Your task to perform on an android device: Show me productivity apps on the Play Store Image 0: 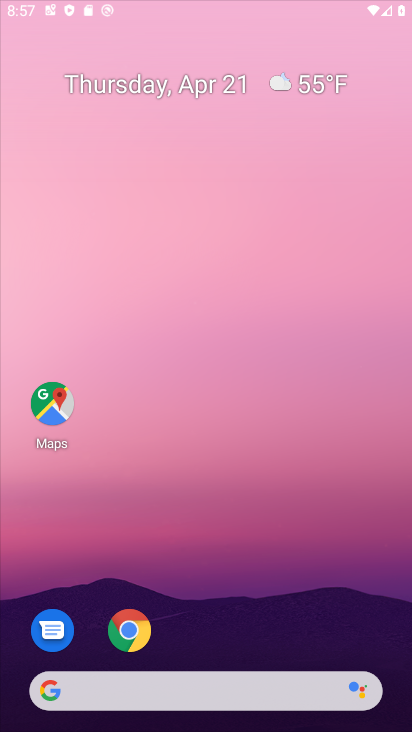
Step 0: click (58, 405)
Your task to perform on an android device: Show me productivity apps on the Play Store Image 1: 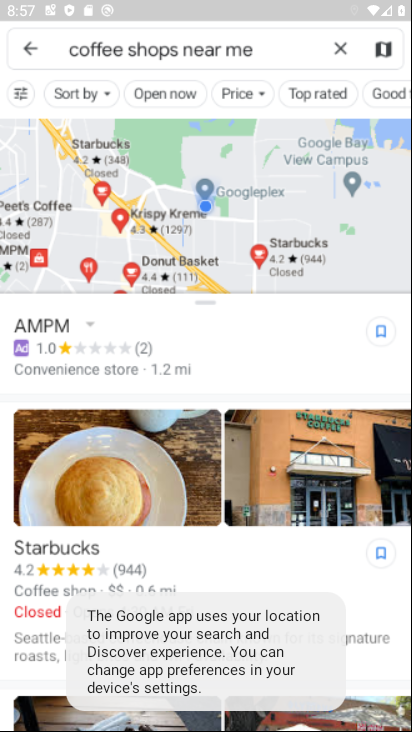
Step 1: click (333, 44)
Your task to perform on an android device: Show me productivity apps on the Play Store Image 2: 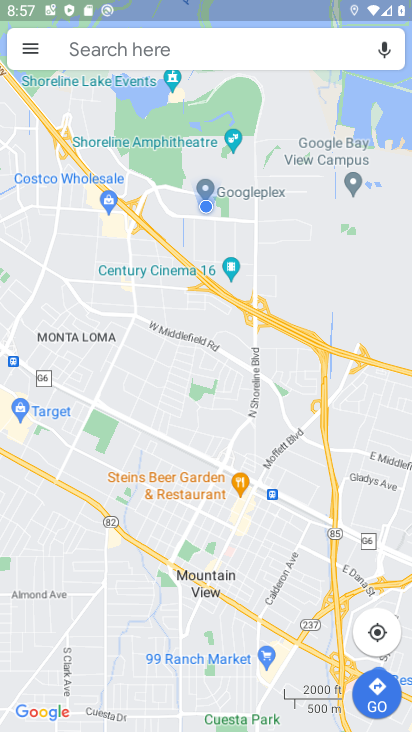
Step 2: click (237, 34)
Your task to perform on an android device: Show me productivity apps on the Play Store Image 3: 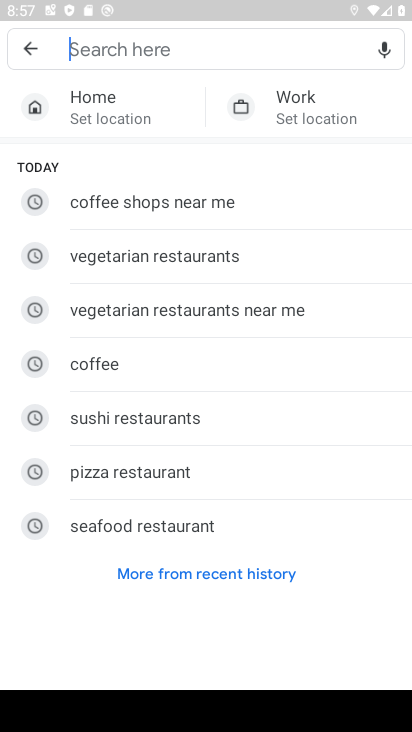
Step 3: press back button
Your task to perform on an android device: Show me productivity apps on the Play Store Image 4: 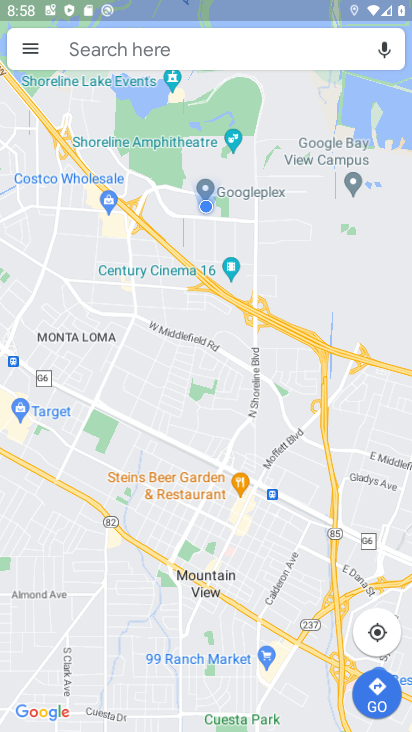
Step 4: press back button
Your task to perform on an android device: Show me productivity apps on the Play Store Image 5: 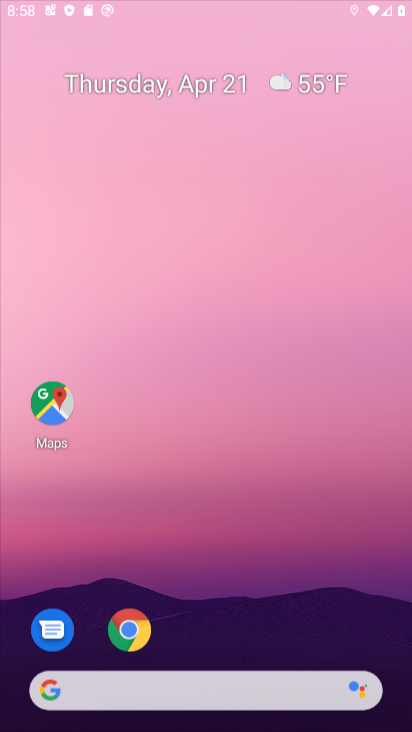
Step 5: press back button
Your task to perform on an android device: Show me productivity apps on the Play Store Image 6: 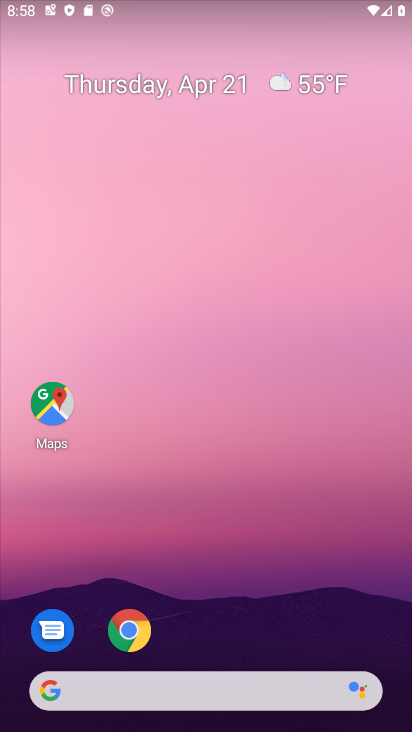
Step 6: drag from (186, 618) to (289, 14)
Your task to perform on an android device: Show me productivity apps on the Play Store Image 7: 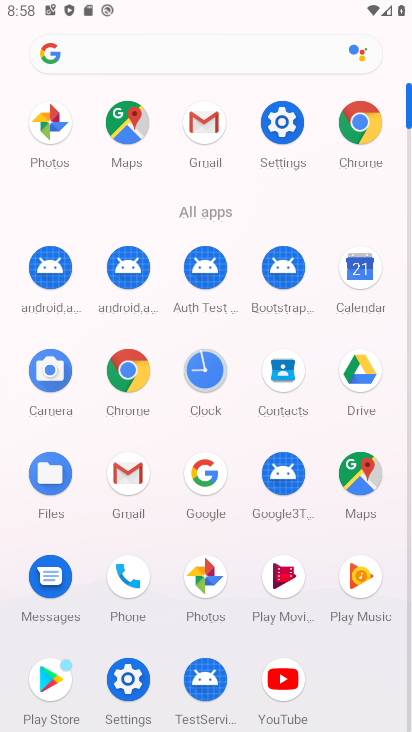
Step 7: click (27, 680)
Your task to perform on an android device: Show me productivity apps on the Play Store Image 8: 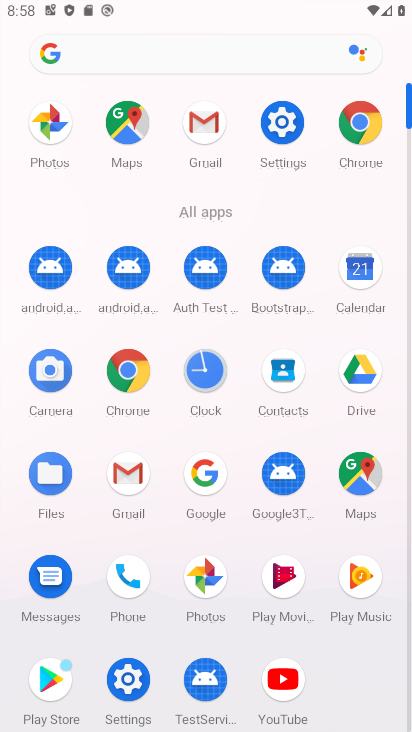
Step 8: click (49, 673)
Your task to perform on an android device: Show me productivity apps on the Play Store Image 9: 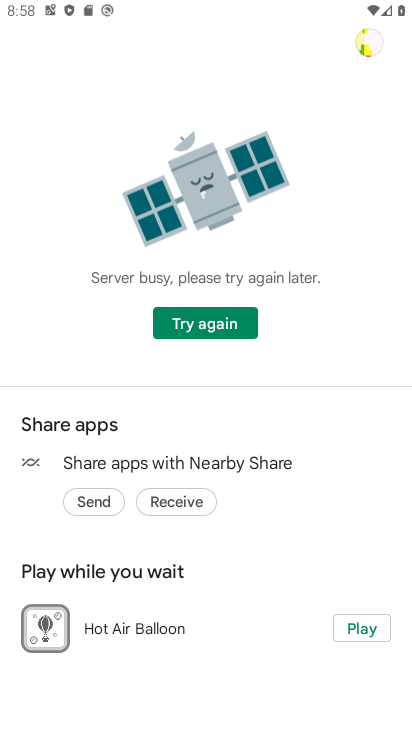
Step 9: click (217, 322)
Your task to perform on an android device: Show me productivity apps on the Play Store Image 10: 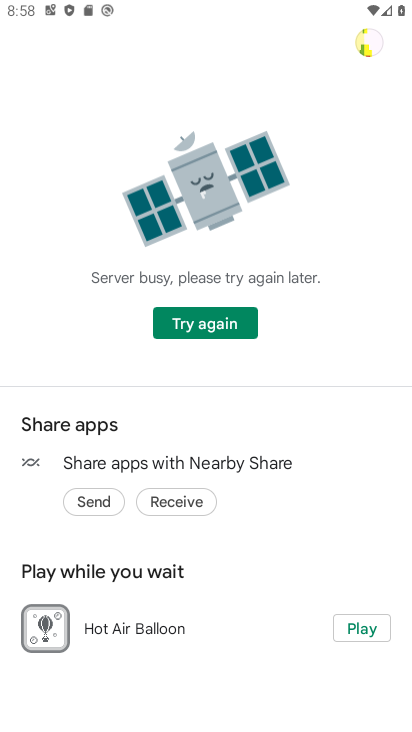
Step 10: click (217, 322)
Your task to perform on an android device: Show me productivity apps on the Play Store Image 11: 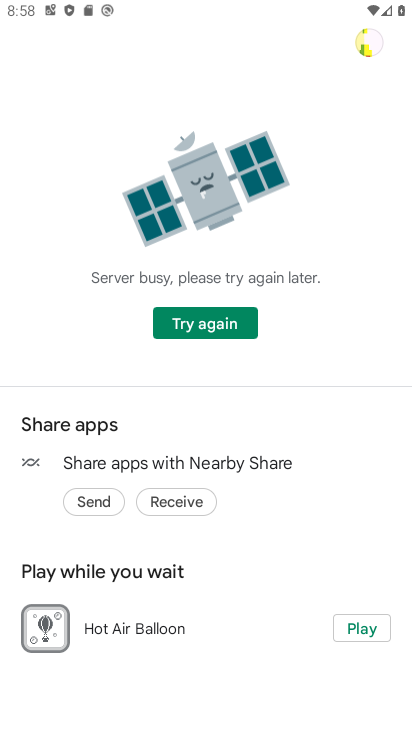
Step 11: task complete